Your task to perform on an android device: View the shopping cart on amazon. Search for "energizer triple a" on amazon, select the first entry, add it to the cart, then select checkout. Image 0: 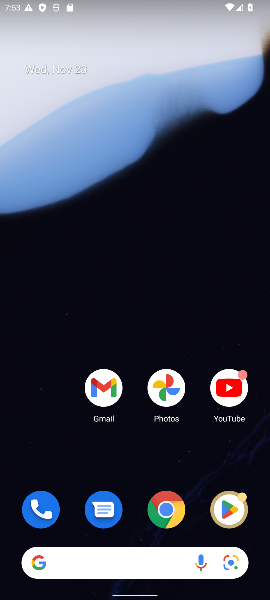
Step 0: click (172, 513)
Your task to perform on an android device: View the shopping cart on amazon. Search for "energizer triple a" on amazon, select the first entry, add it to the cart, then select checkout. Image 1: 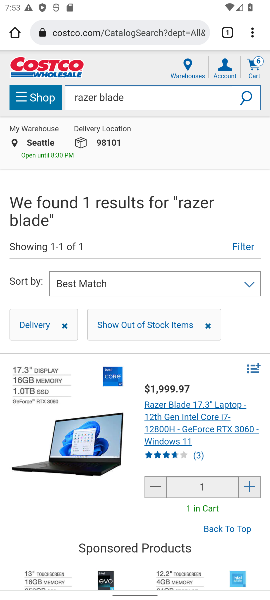
Step 1: click (176, 36)
Your task to perform on an android device: View the shopping cart on amazon. Search for "energizer triple a" on amazon, select the first entry, add it to the cart, then select checkout. Image 2: 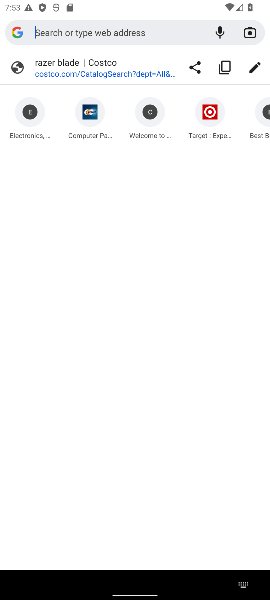
Step 2: type "amazon,com"
Your task to perform on an android device: View the shopping cart on amazon. Search for "energizer triple a" on amazon, select the first entry, add it to the cart, then select checkout. Image 3: 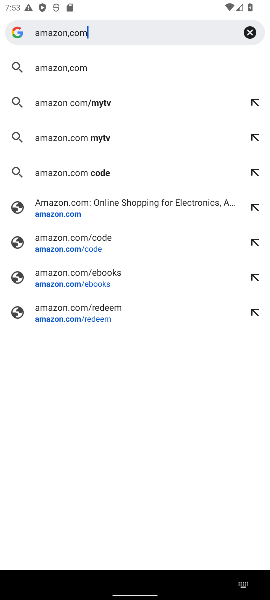
Step 3: click (101, 61)
Your task to perform on an android device: View the shopping cart on amazon. Search for "energizer triple a" on amazon, select the first entry, add it to the cart, then select checkout. Image 4: 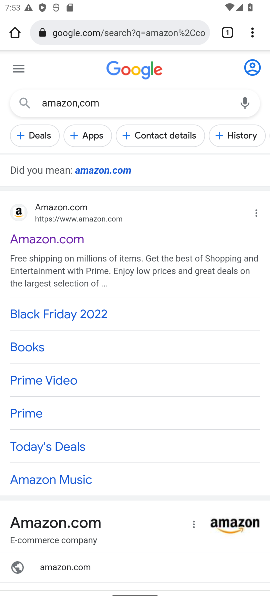
Step 4: click (69, 244)
Your task to perform on an android device: View the shopping cart on amazon. Search for "energizer triple a" on amazon, select the first entry, add it to the cart, then select checkout. Image 5: 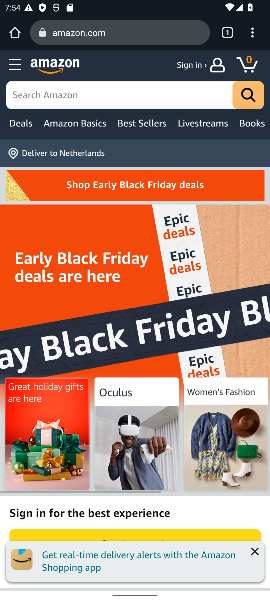
Step 5: click (248, 66)
Your task to perform on an android device: View the shopping cart on amazon. Search for "energizer triple a" on amazon, select the first entry, add it to the cart, then select checkout. Image 6: 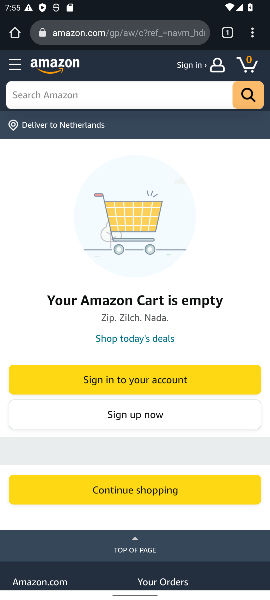
Step 6: click (110, 97)
Your task to perform on an android device: View the shopping cart on amazon. Search for "energizer triple a" on amazon, select the first entry, add it to the cart, then select checkout. Image 7: 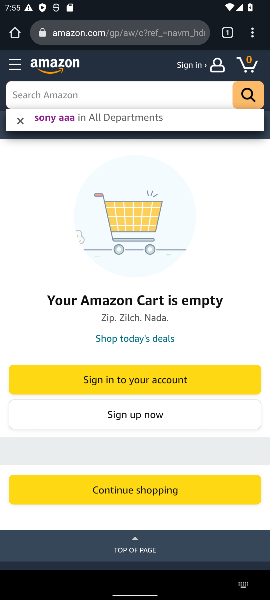
Step 7: type "energizer aaa"
Your task to perform on an android device: View the shopping cart on amazon. Search for "energizer triple a" on amazon, select the first entry, add it to the cart, then select checkout. Image 8: 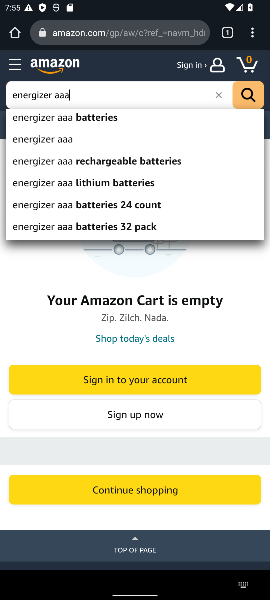
Step 8: press enter
Your task to perform on an android device: View the shopping cart on amazon. Search for "energizer triple a" on amazon, select the first entry, add it to the cart, then select checkout. Image 9: 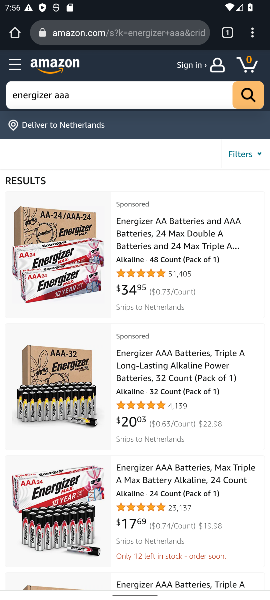
Step 9: click (153, 366)
Your task to perform on an android device: View the shopping cart on amazon. Search for "energizer triple a" on amazon, select the first entry, add it to the cart, then select checkout. Image 10: 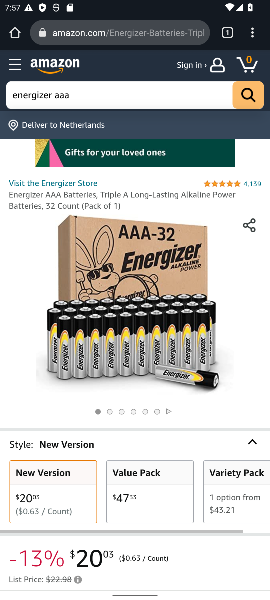
Step 10: drag from (181, 483) to (175, 193)
Your task to perform on an android device: View the shopping cart on amazon. Search for "energizer triple a" on amazon, select the first entry, add it to the cart, then select checkout. Image 11: 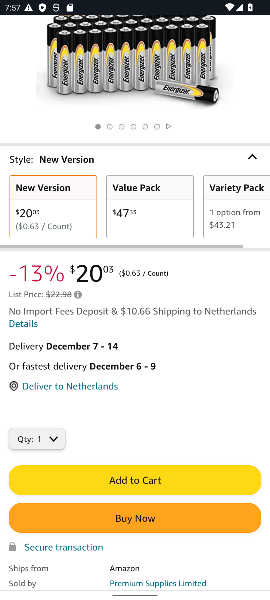
Step 11: click (141, 472)
Your task to perform on an android device: View the shopping cart on amazon. Search for "energizer triple a" on amazon, select the first entry, add it to the cart, then select checkout. Image 12: 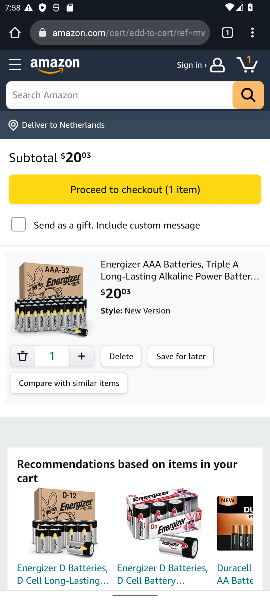
Step 12: click (167, 186)
Your task to perform on an android device: View the shopping cart on amazon. Search for "energizer triple a" on amazon, select the first entry, add it to the cart, then select checkout. Image 13: 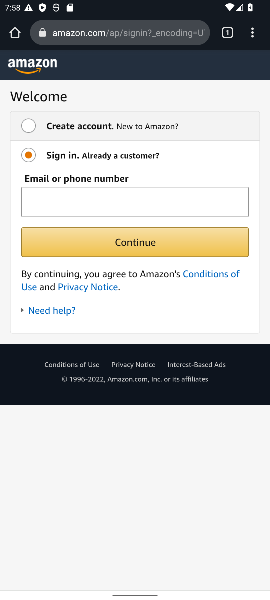
Step 13: task complete